Your task to perform on an android device: set default search engine in the chrome app Image 0: 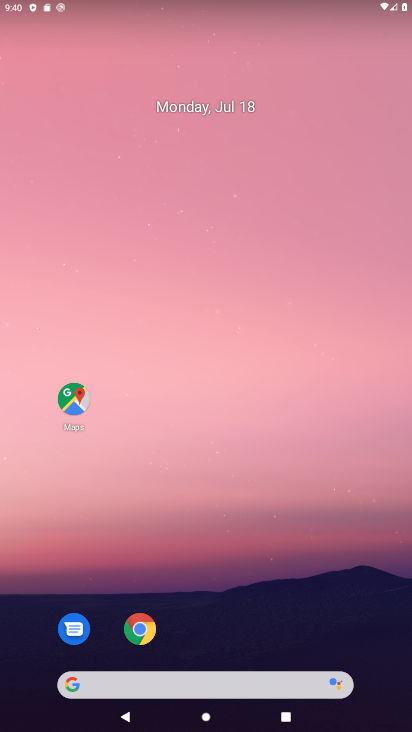
Step 0: click (154, 633)
Your task to perform on an android device: set default search engine in the chrome app Image 1: 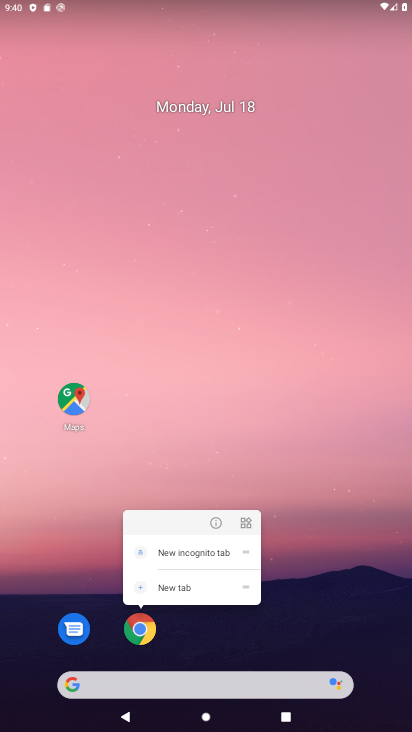
Step 1: click (148, 633)
Your task to perform on an android device: set default search engine in the chrome app Image 2: 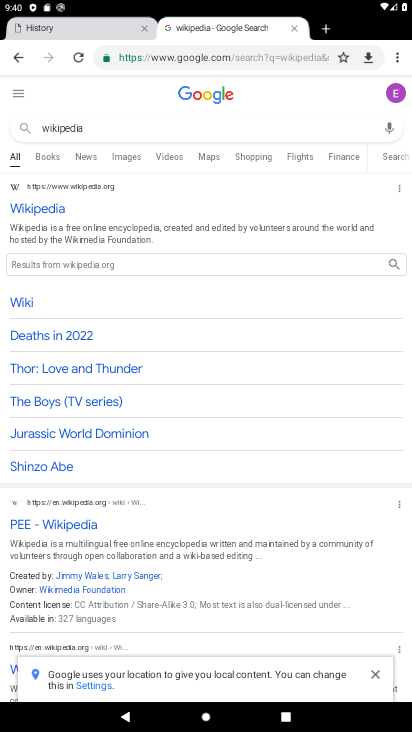
Step 2: drag from (397, 52) to (320, 353)
Your task to perform on an android device: set default search engine in the chrome app Image 3: 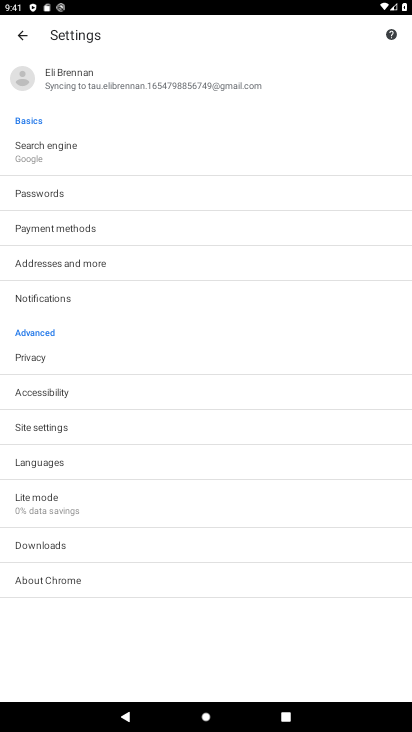
Step 3: click (81, 143)
Your task to perform on an android device: set default search engine in the chrome app Image 4: 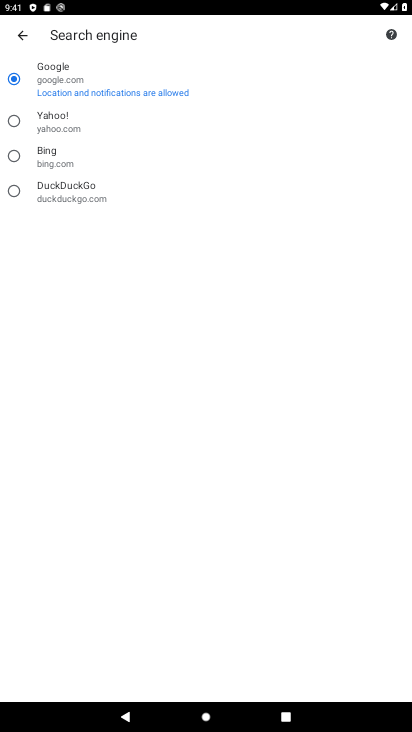
Step 4: click (51, 130)
Your task to perform on an android device: set default search engine in the chrome app Image 5: 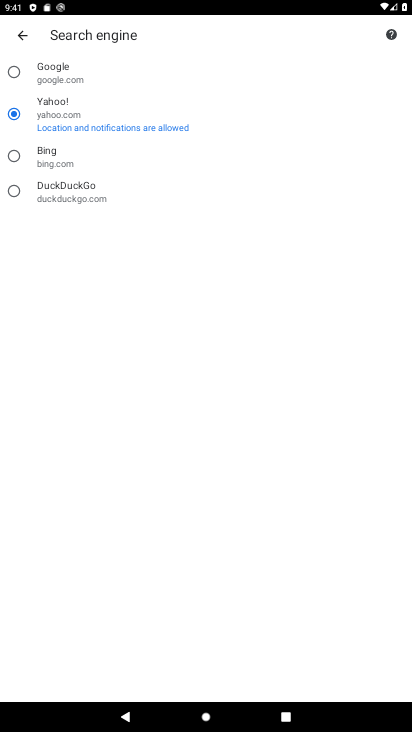
Step 5: task complete